Your task to perform on an android device: change the clock style Image 0: 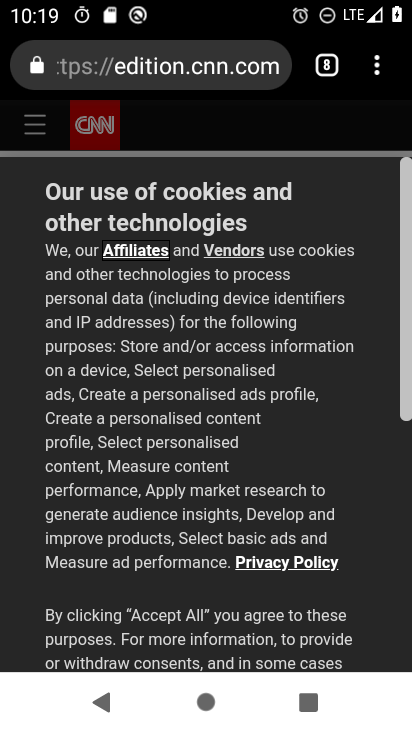
Step 0: press home button
Your task to perform on an android device: change the clock style Image 1: 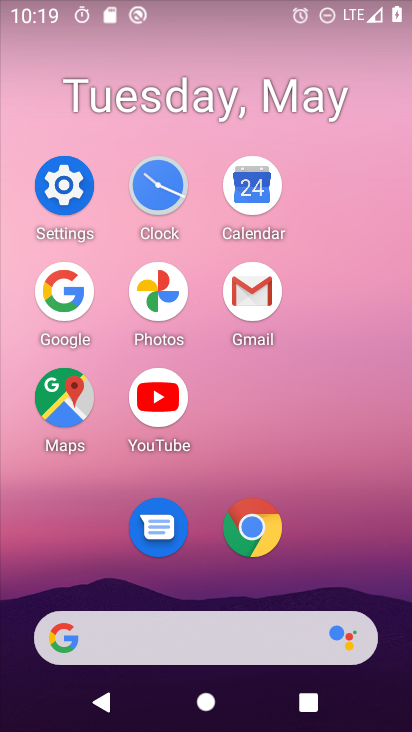
Step 1: click (166, 194)
Your task to perform on an android device: change the clock style Image 2: 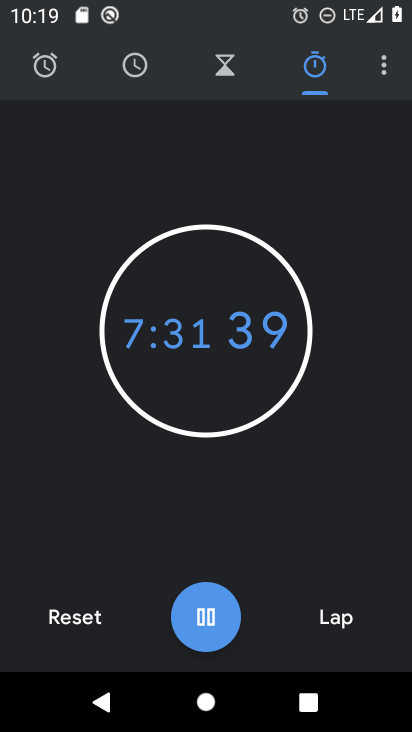
Step 2: click (386, 68)
Your task to perform on an android device: change the clock style Image 3: 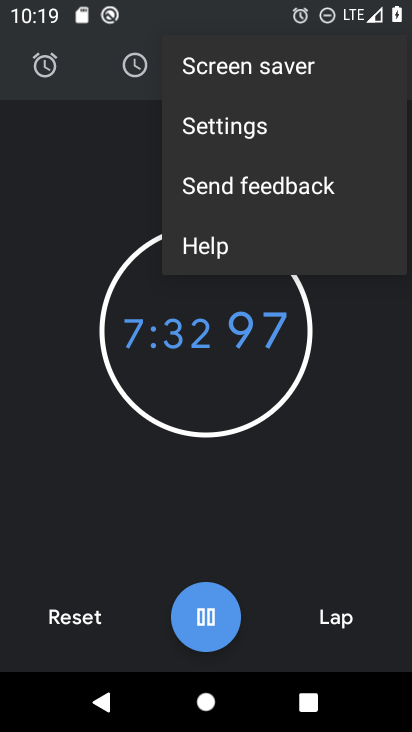
Step 3: click (325, 134)
Your task to perform on an android device: change the clock style Image 4: 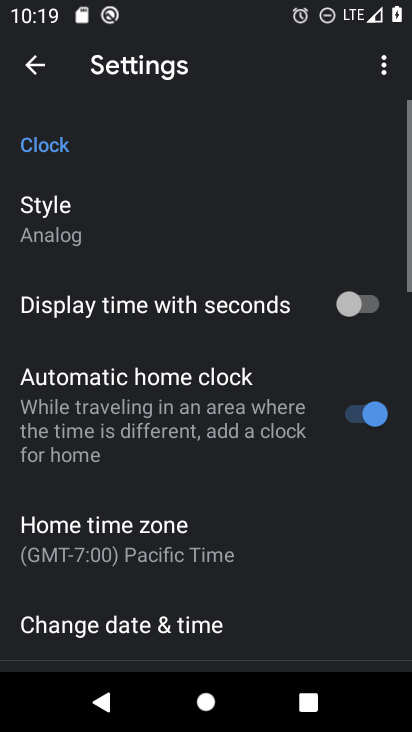
Step 4: click (87, 221)
Your task to perform on an android device: change the clock style Image 5: 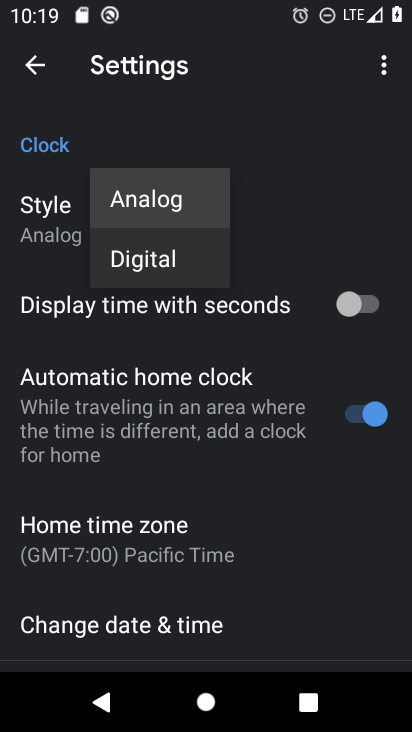
Step 5: click (129, 253)
Your task to perform on an android device: change the clock style Image 6: 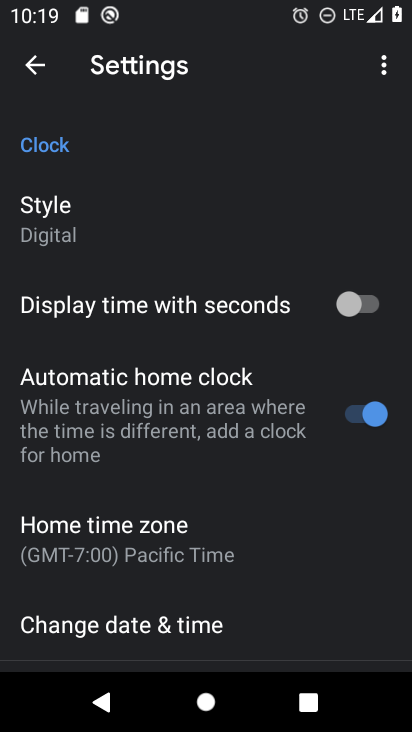
Step 6: task complete